Your task to perform on an android device: Open display settings Image 0: 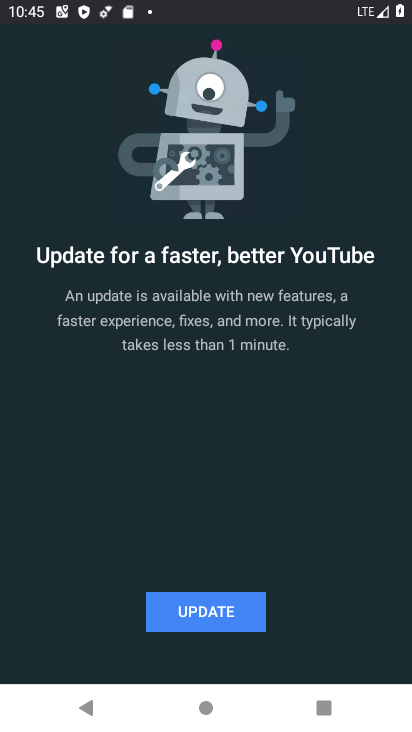
Step 0: task complete